Your task to perform on an android device: change text size in settings app Image 0: 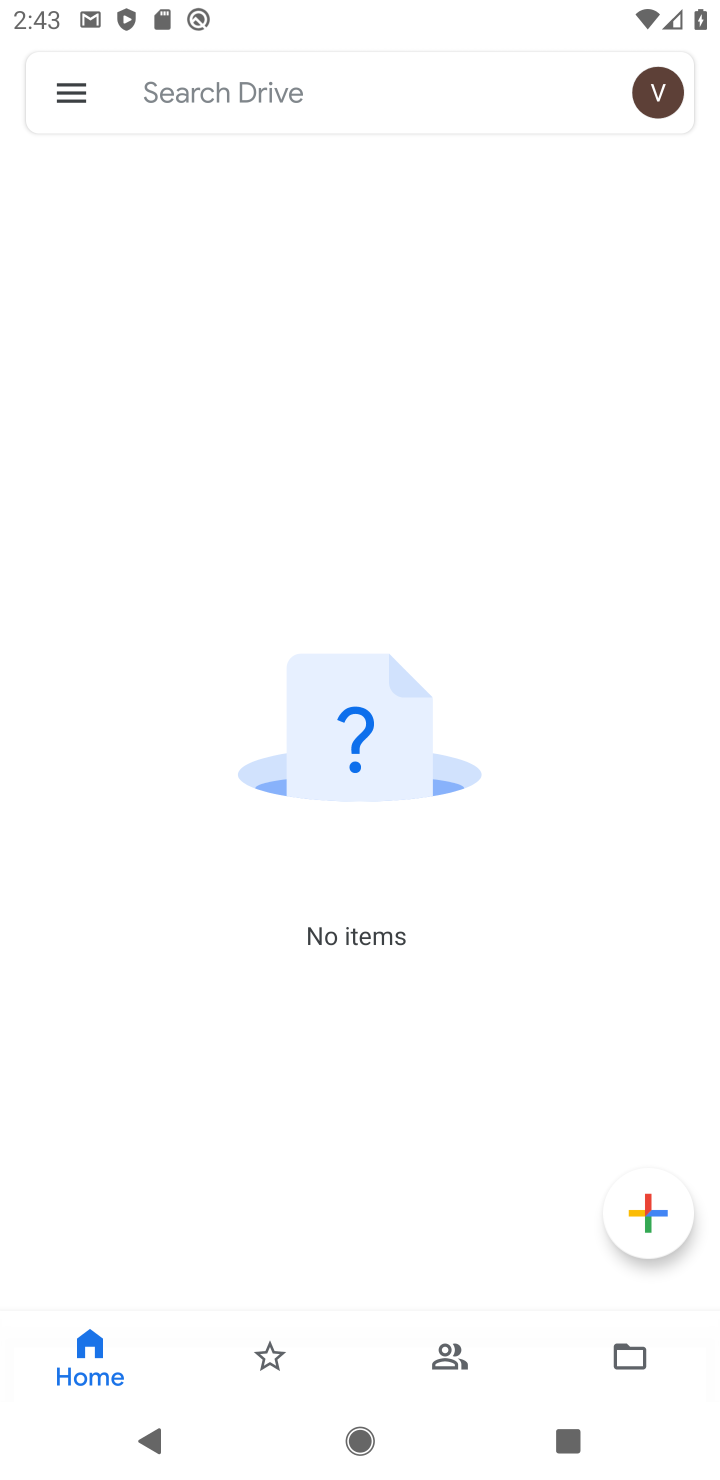
Step 0: press back button
Your task to perform on an android device: change text size in settings app Image 1: 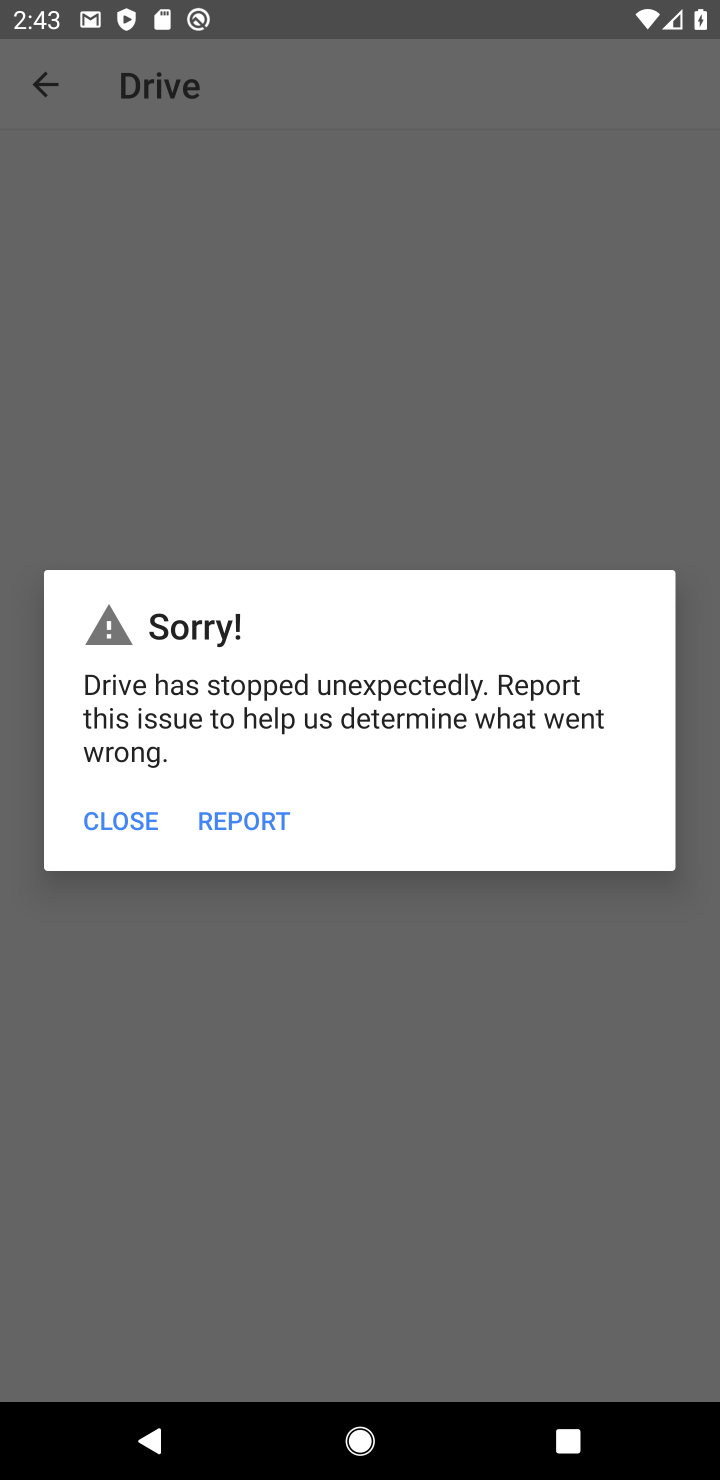
Step 1: press home button
Your task to perform on an android device: change text size in settings app Image 2: 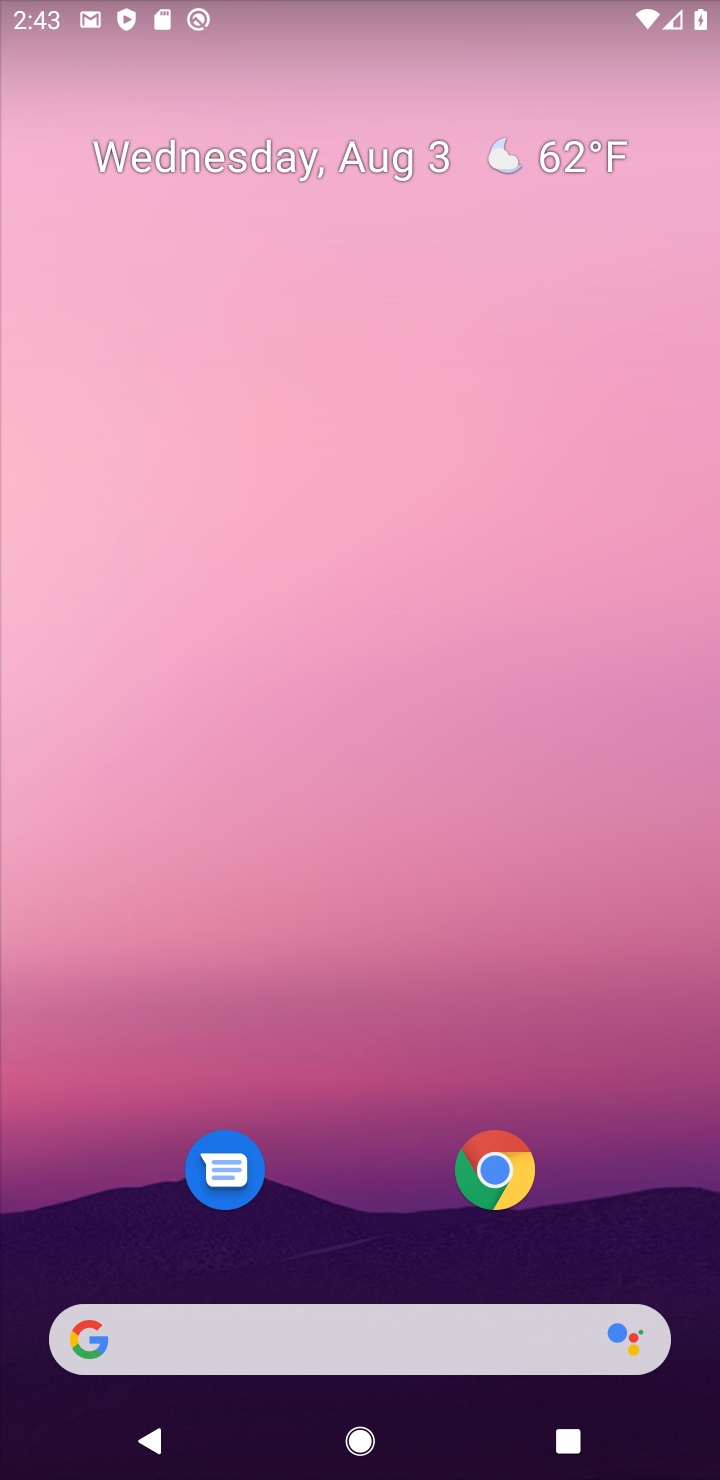
Step 2: drag from (334, 1056) to (236, 64)
Your task to perform on an android device: change text size in settings app Image 3: 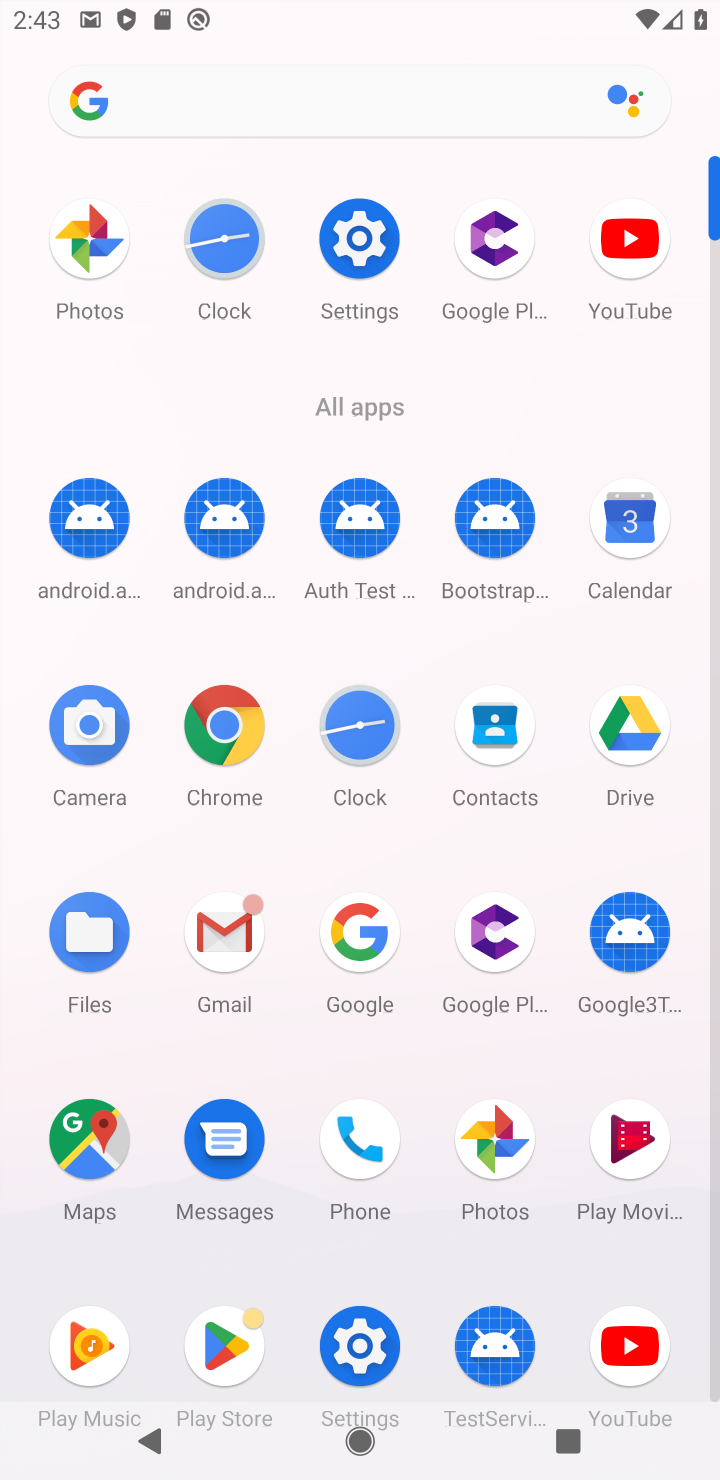
Step 3: click (359, 246)
Your task to perform on an android device: change text size in settings app Image 4: 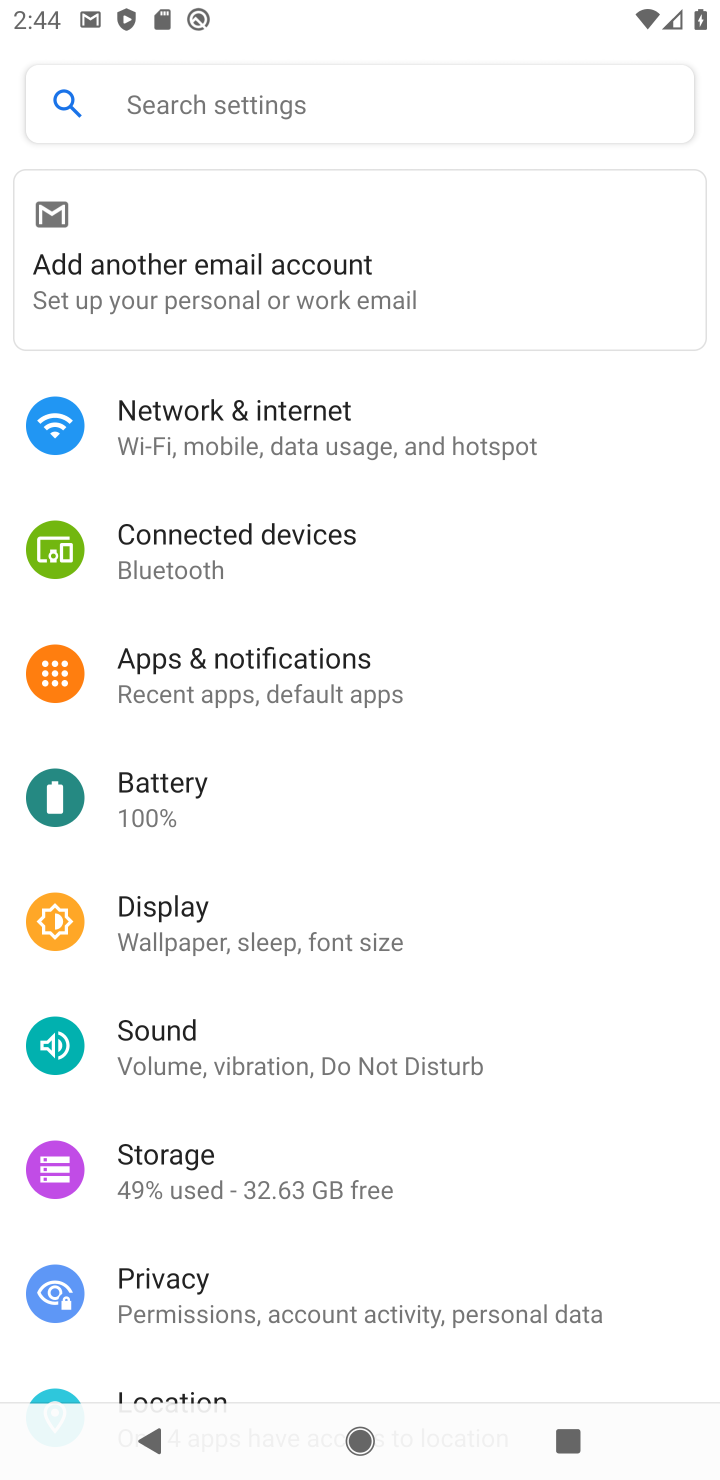
Step 4: click (228, 947)
Your task to perform on an android device: change text size in settings app Image 5: 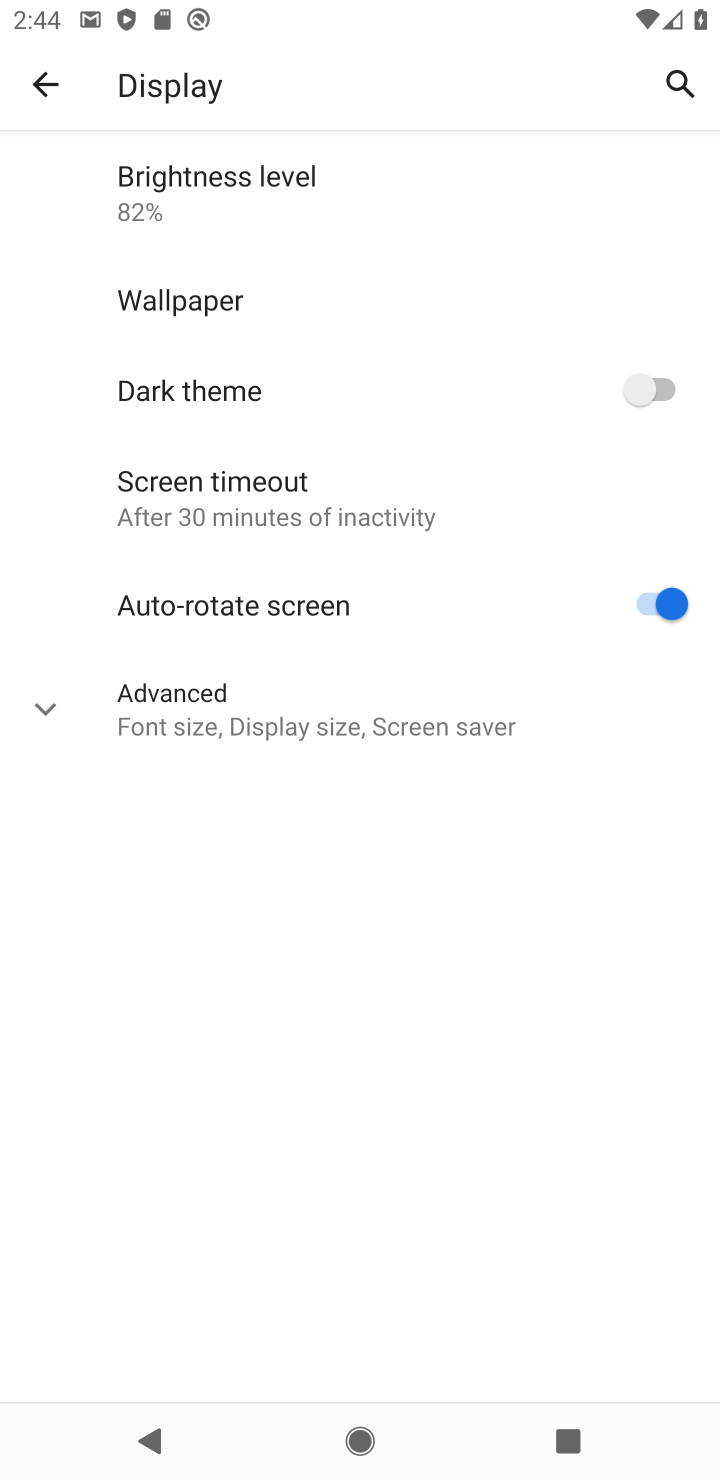
Step 5: click (187, 698)
Your task to perform on an android device: change text size in settings app Image 6: 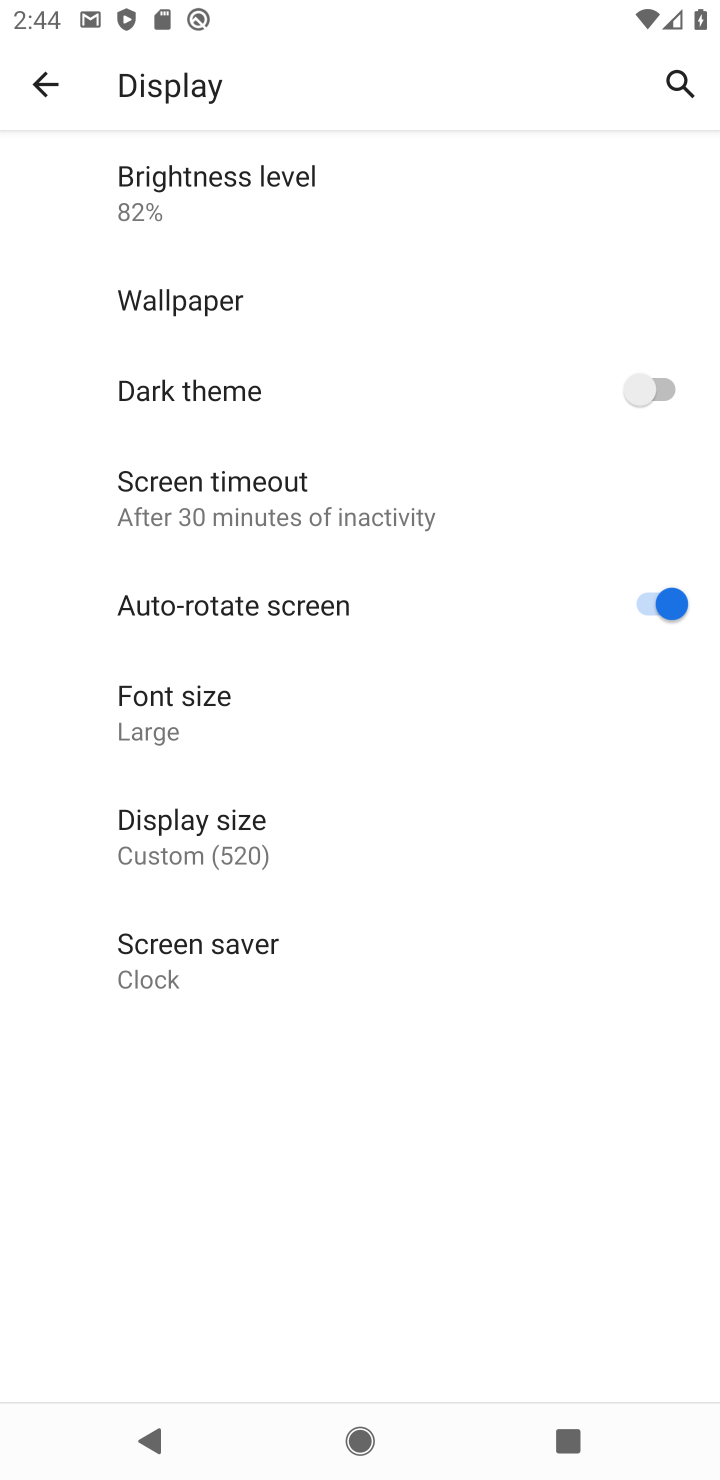
Step 6: click (165, 836)
Your task to perform on an android device: change text size in settings app Image 7: 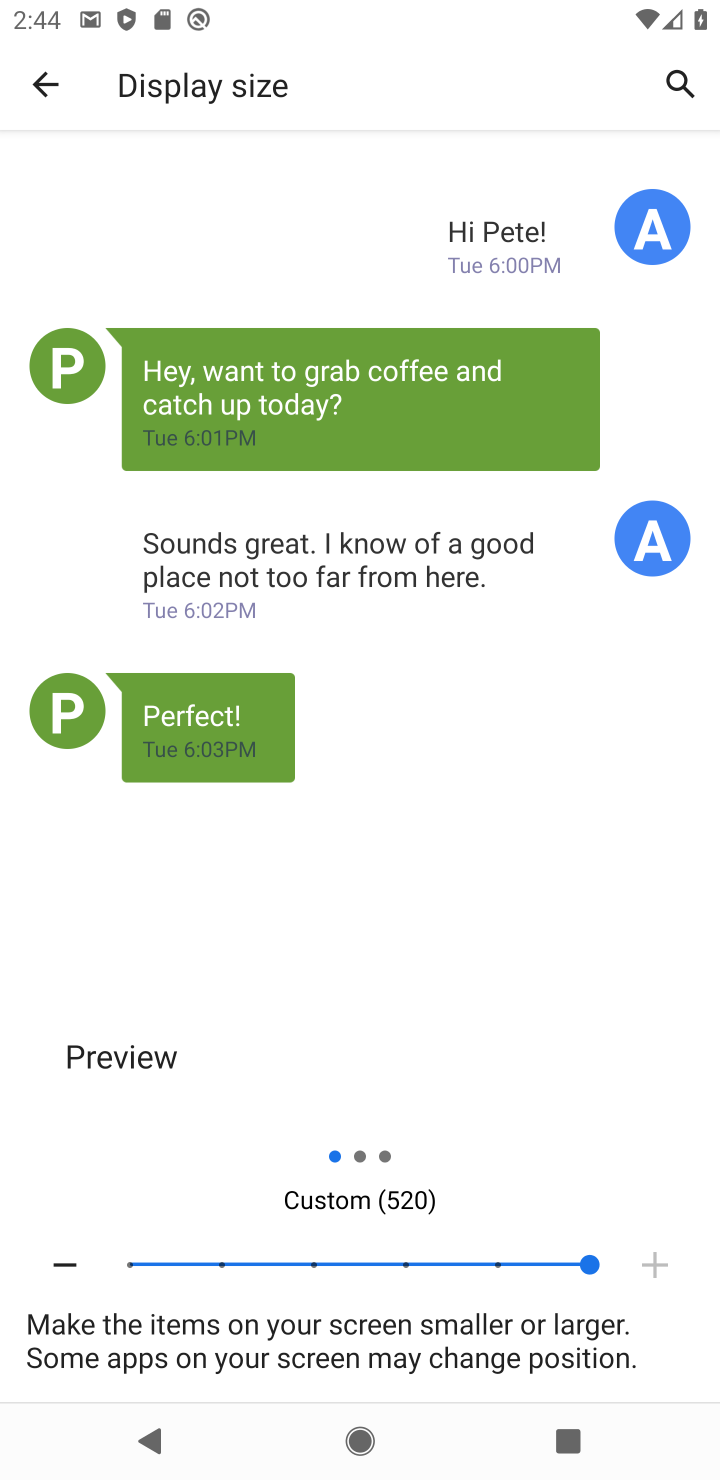
Step 7: press back button
Your task to perform on an android device: change text size in settings app Image 8: 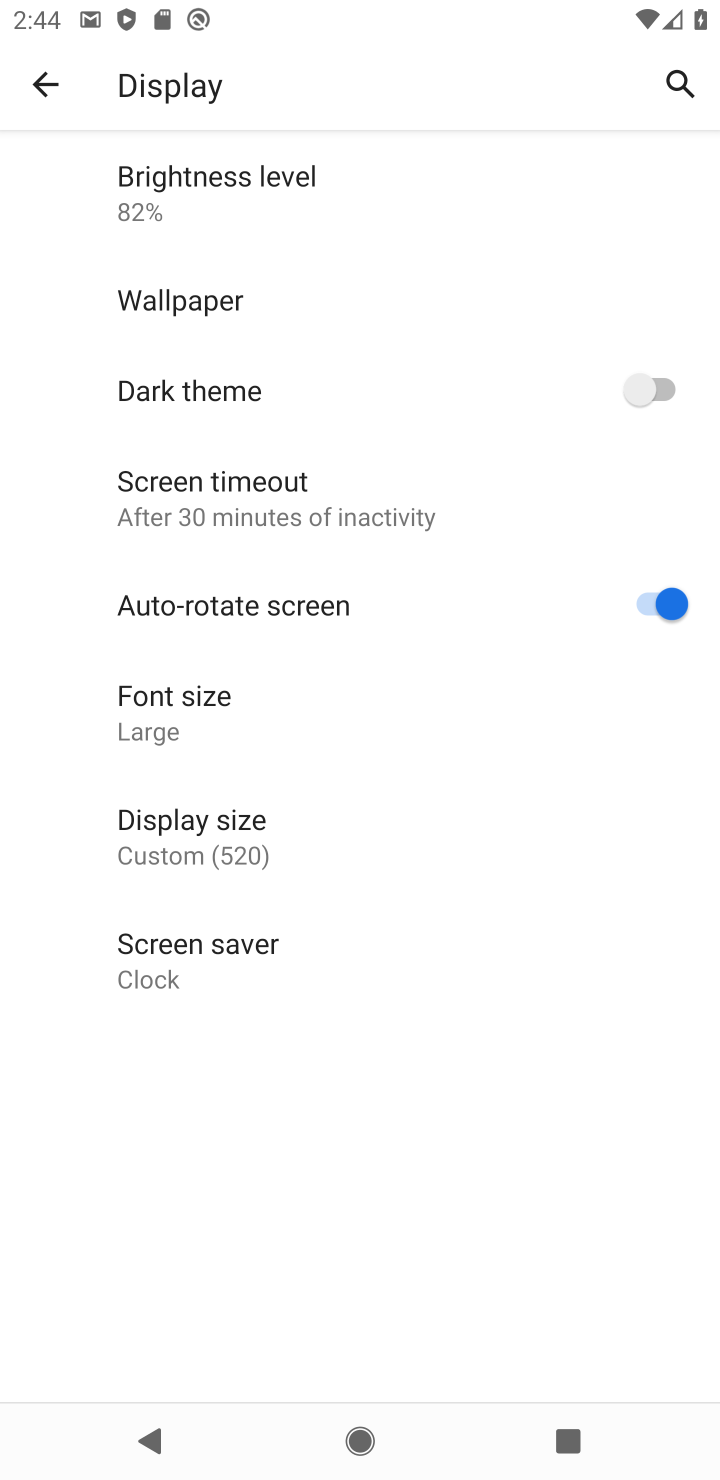
Step 8: click (155, 724)
Your task to perform on an android device: change text size in settings app Image 9: 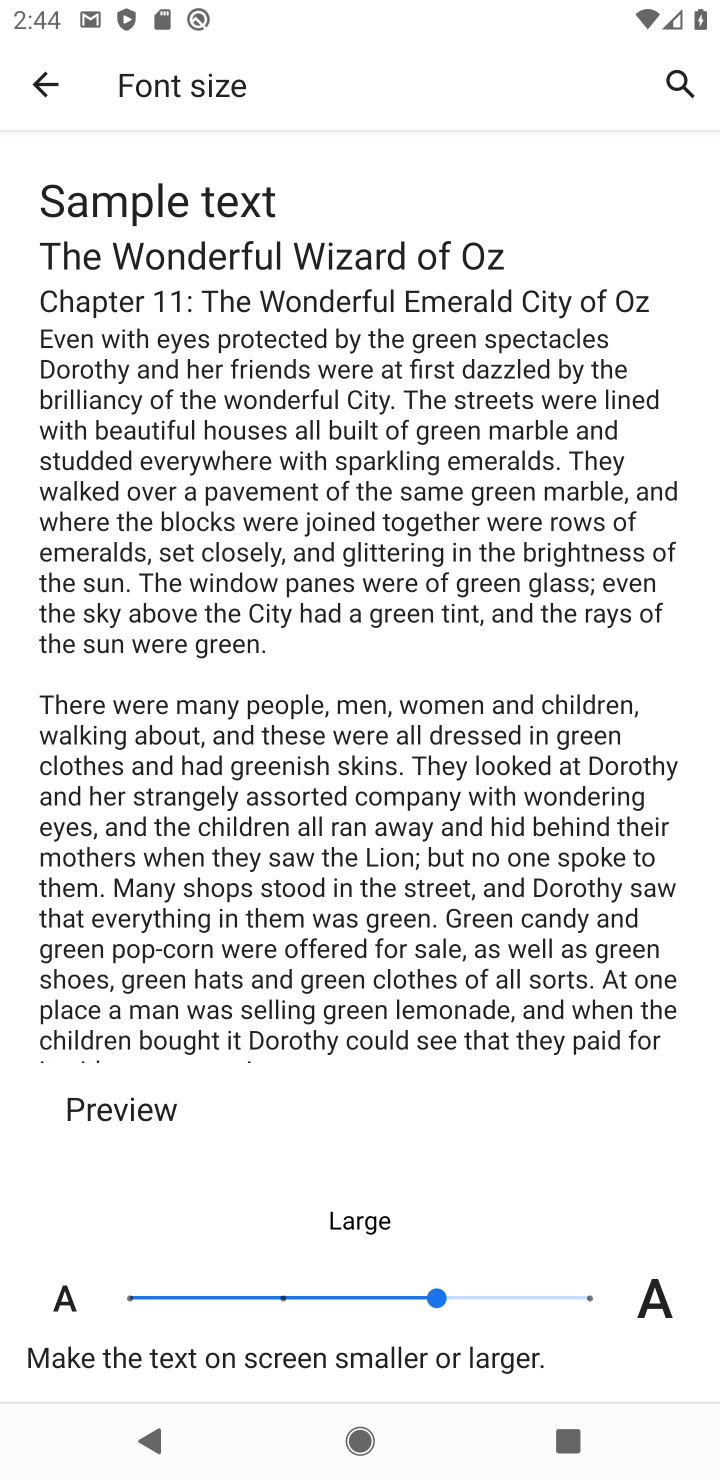
Step 9: click (298, 1304)
Your task to perform on an android device: change text size in settings app Image 10: 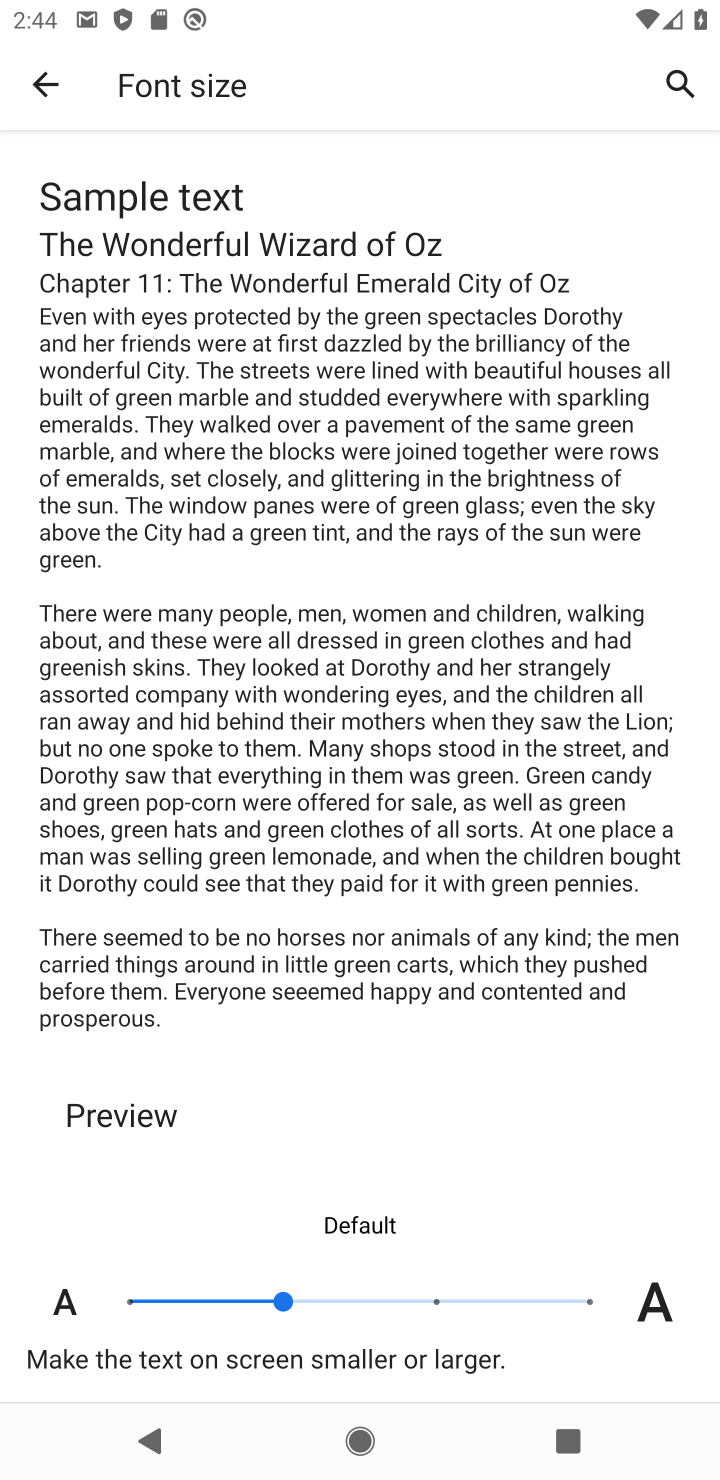
Step 10: task complete